Your task to perform on an android device: remove spam from my inbox in the gmail app Image 0: 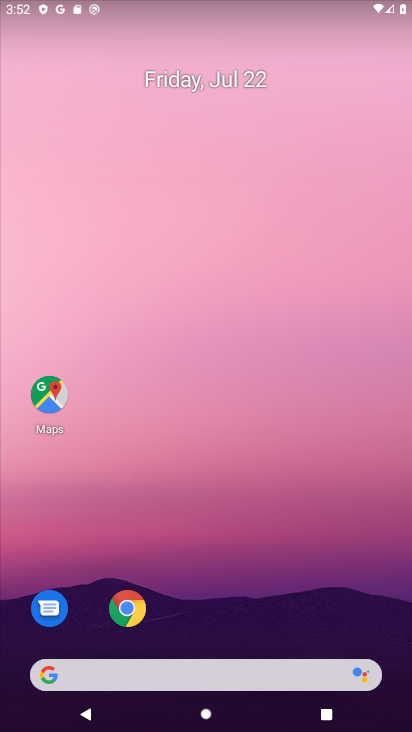
Step 0: task complete